Your task to perform on an android device: toggle improve location accuracy Image 0: 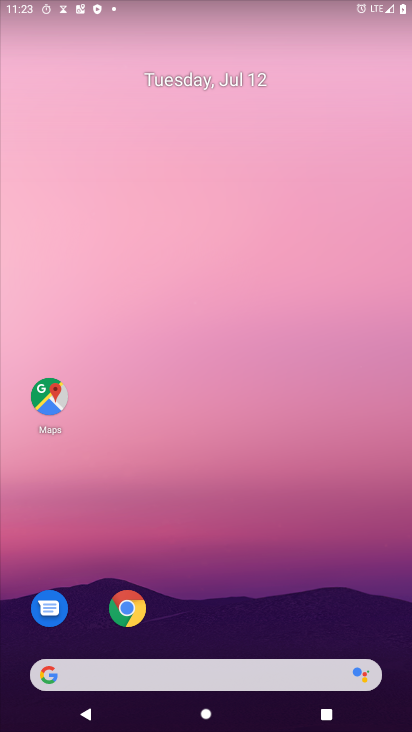
Step 0: drag from (275, 614) to (281, 147)
Your task to perform on an android device: toggle improve location accuracy Image 1: 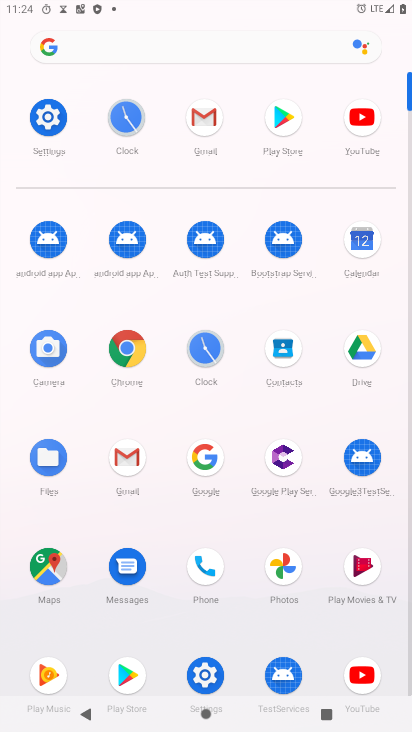
Step 1: click (202, 663)
Your task to perform on an android device: toggle improve location accuracy Image 2: 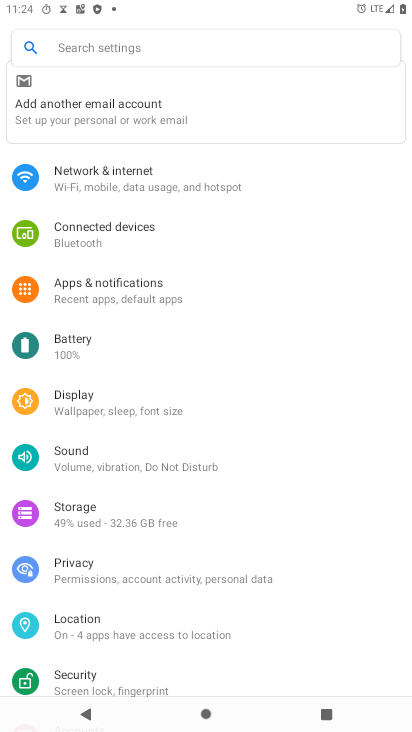
Step 2: click (126, 631)
Your task to perform on an android device: toggle improve location accuracy Image 3: 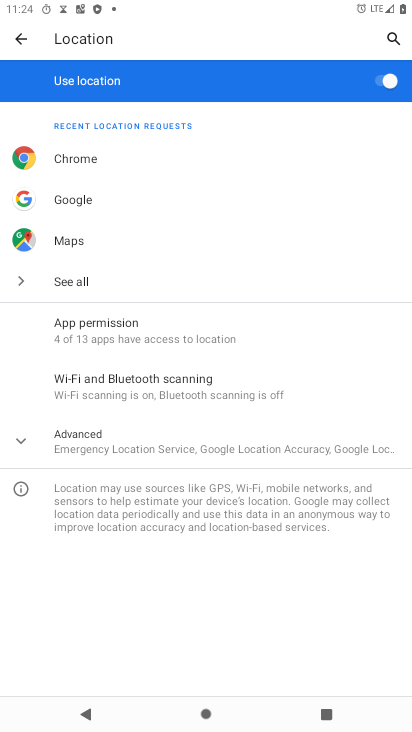
Step 3: click (116, 448)
Your task to perform on an android device: toggle improve location accuracy Image 4: 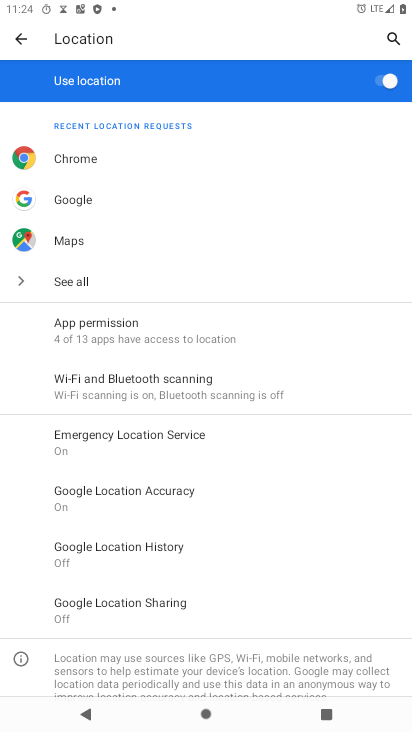
Step 4: click (127, 498)
Your task to perform on an android device: toggle improve location accuracy Image 5: 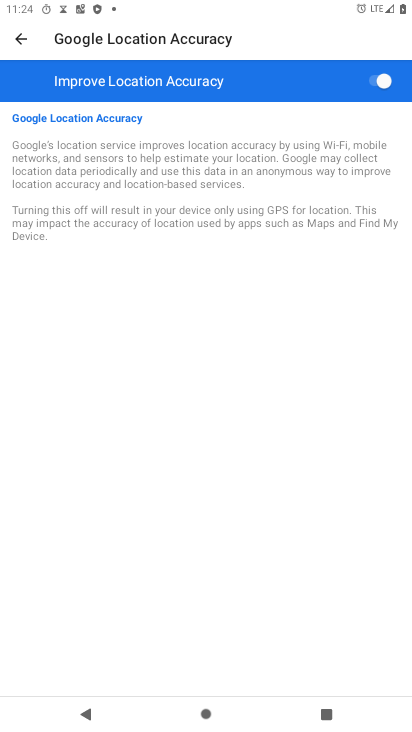
Step 5: click (370, 87)
Your task to perform on an android device: toggle improve location accuracy Image 6: 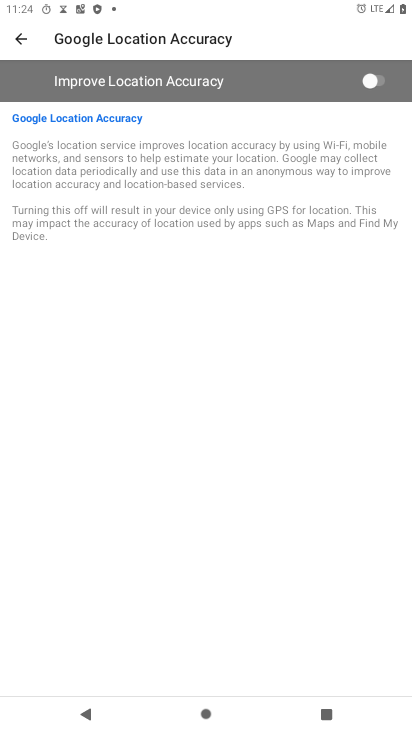
Step 6: task complete